Your task to perform on an android device: Open the calendar and show me this week's events? Image 0: 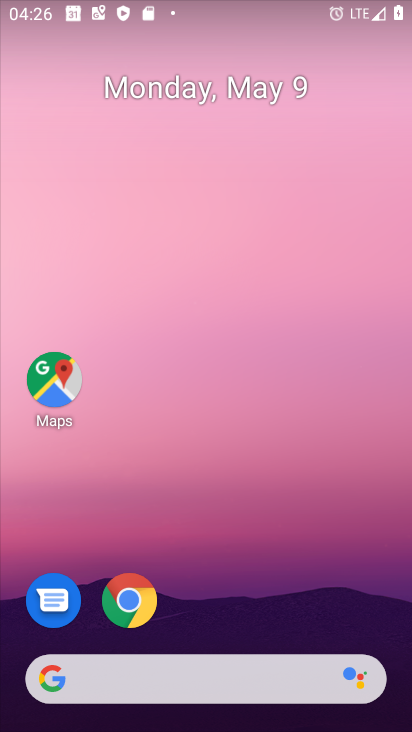
Step 0: drag from (260, 680) to (226, 64)
Your task to perform on an android device: Open the calendar and show me this week's events? Image 1: 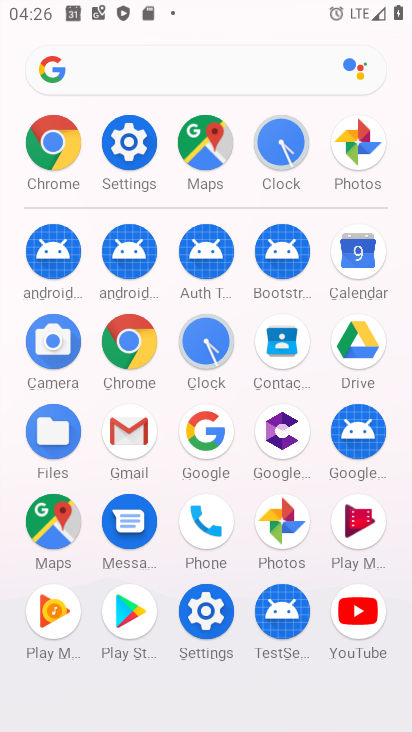
Step 1: click (346, 251)
Your task to perform on an android device: Open the calendar and show me this week's events? Image 2: 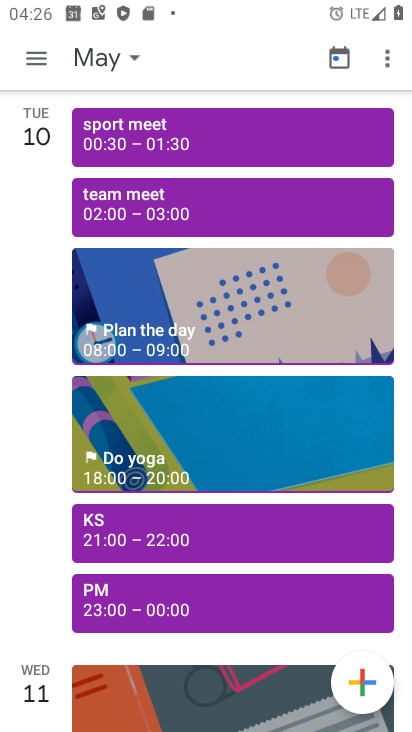
Step 2: click (129, 57)
Your task to perform on an android device: Open the calendar and show me this week's events? Image 3: 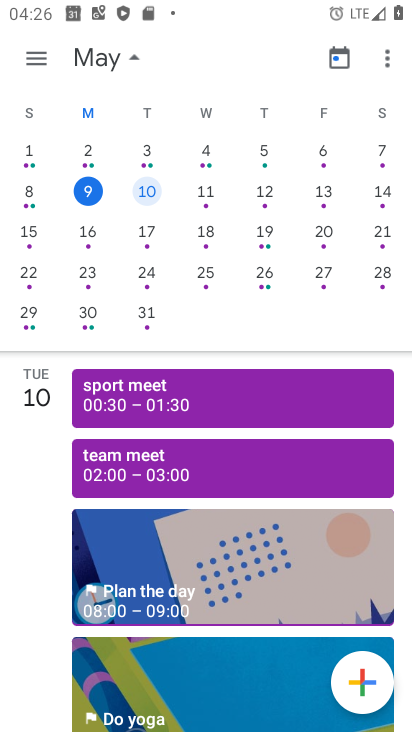
Step 3: click (261, 190)
Your task to perform on an android device: Open the calendar and show me this week's events? Image 4: 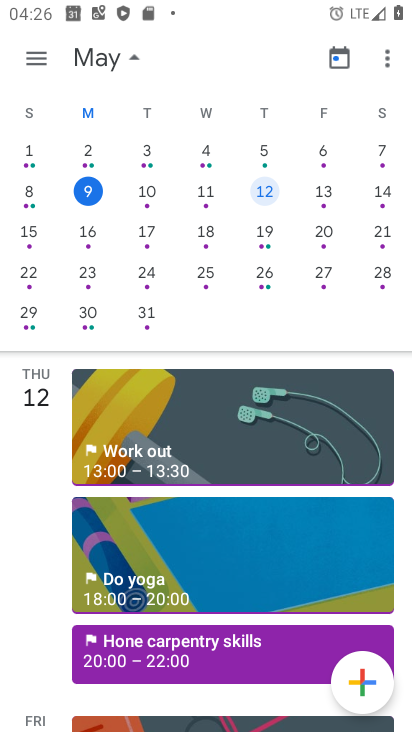
Step 4: click (40, 64)
Your task to perform on an android device: Open the calendar and show me this week's events? Image 5: 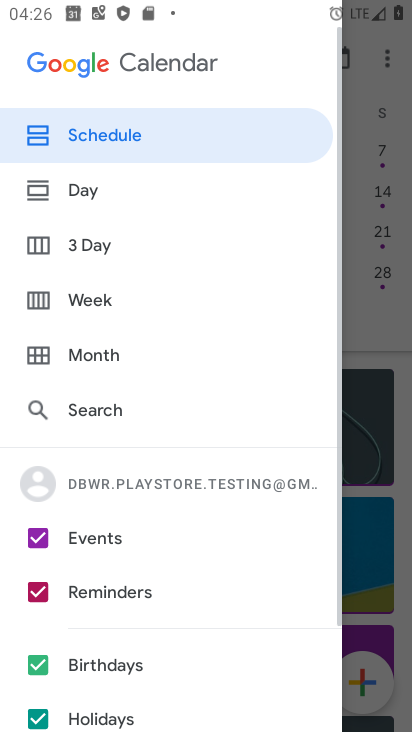
Step 5: click (101, 302)
Your task to perform on an android device: Open the calendar and show me this week's events? Image 6: 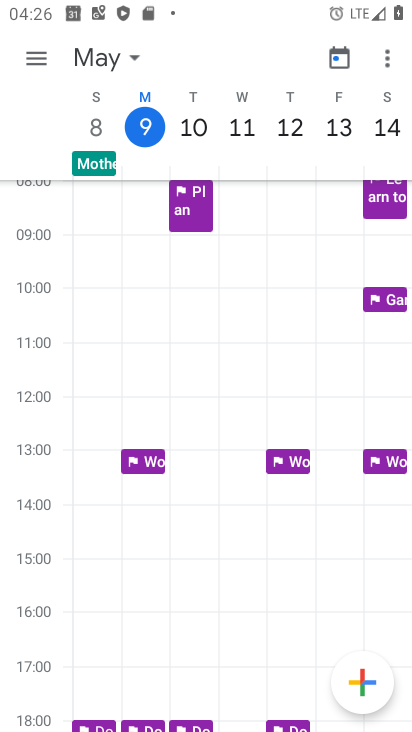
Step 6: task complete